Your task to perform on an android device: turn on translation in the chrome app Image 0: 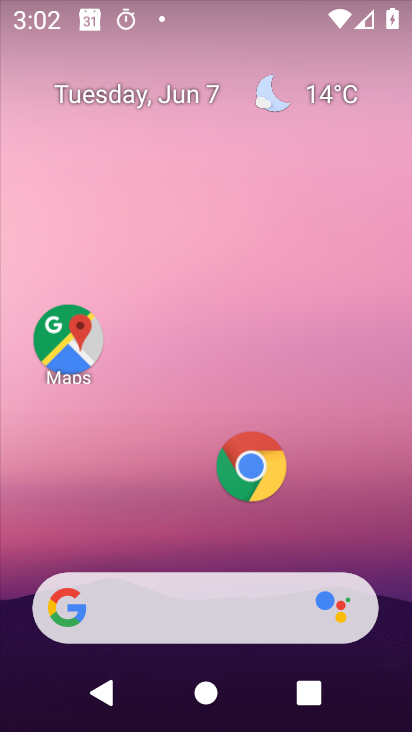
Step 0: click (268, 491)
Your task to perform on an android device: turn on translation in the chrome app Image 1: 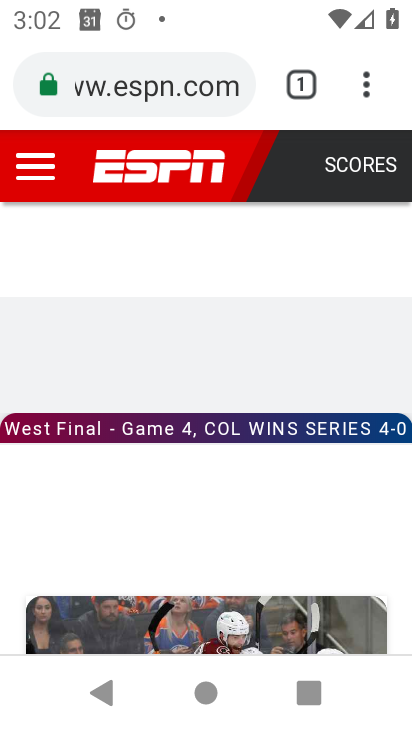
Step 1: click (358, 88)
Your task to perform on an android device: turn on translation in the chrome app Image 2: 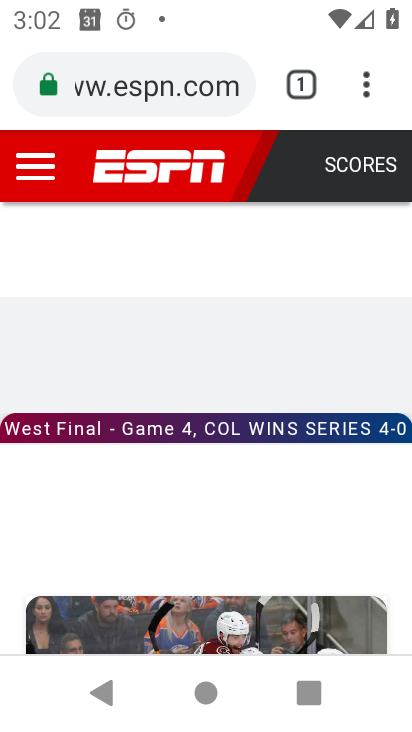
Step 2: click (367, 83)
Your task to perform on an android device: turn on translation in the chrome app Image 3: 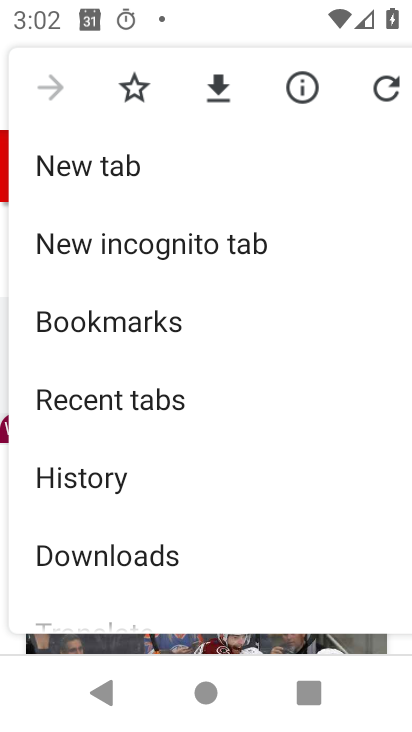
Step 3: drag from (190, 529) to (239, 193)
Your task to perform on an android device: turn on translation in the chrome app Image 4: 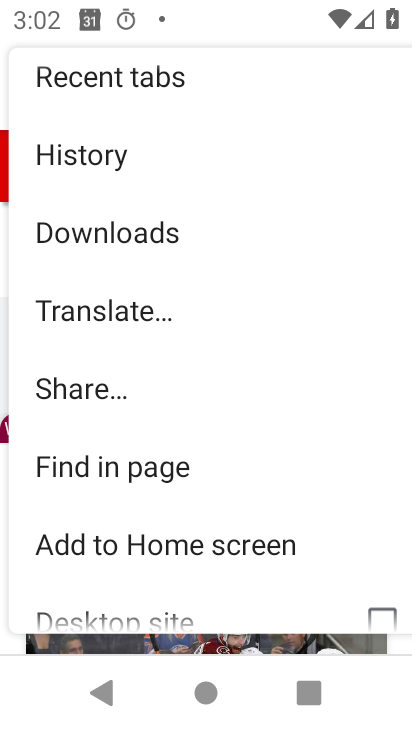
Step 4: drag from (117, 577) to (162, 290)
Your task to perform on an android device: turn on translation in the chrome app Image 5: 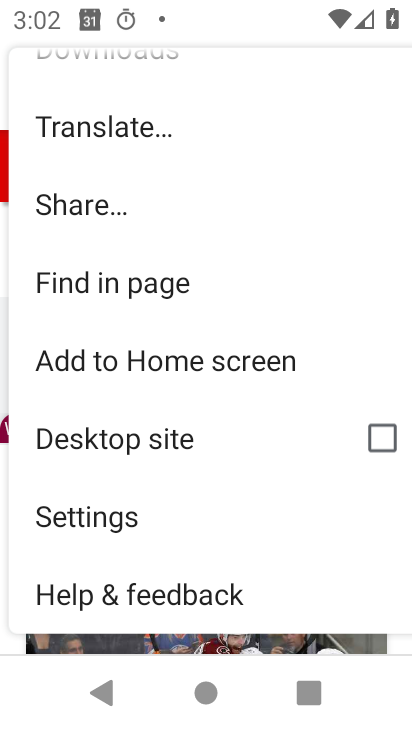
Step 5: click (100, 523)
Your task to perform on an android device: turn on translation in the chrome app Image 6: 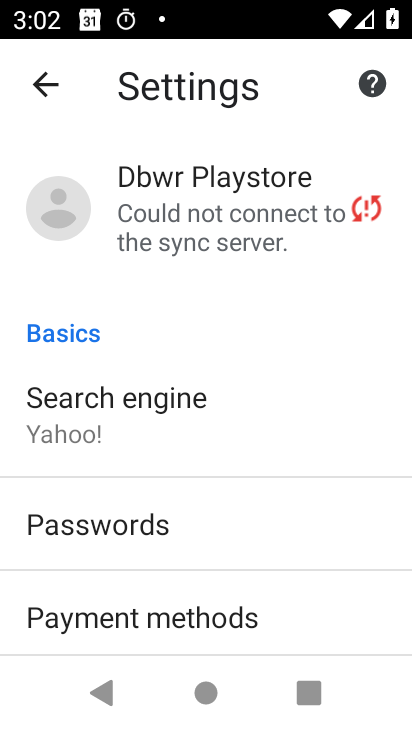
Step 6: drag from (238, 495) to (263, 296)
Your task to perform on an android device: turn on translation in the chrome app Image 7: 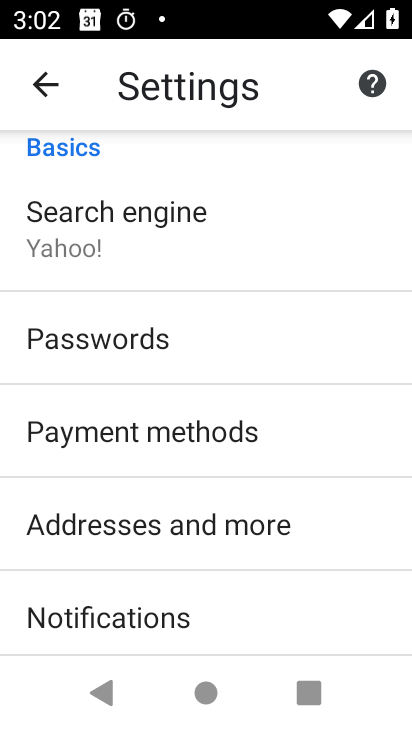
Step 7: drag from (242, 588) to (279, 272)
Your task to perform on an android device: turn on translation in the chrome app Image 8: 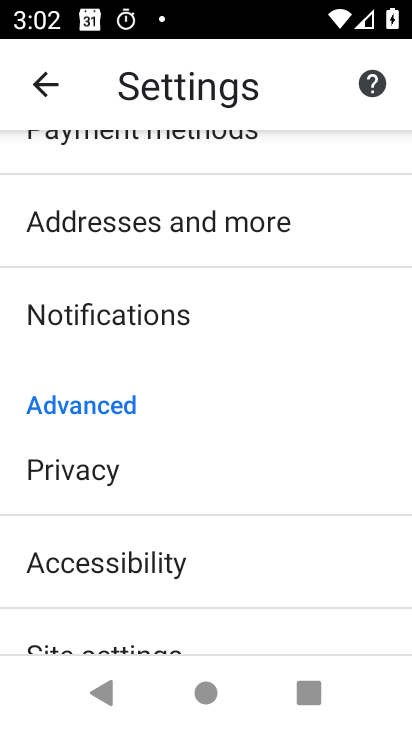
Step 8: drag from (247, 571) to (271, 381)
Your task to perform on an android device: turn on translation in the chrome app Image 9: 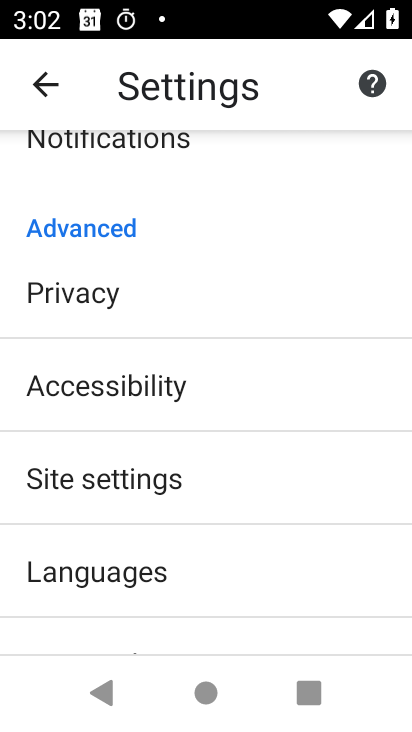
Step 9: click (132, 572)
Your task to perform on an android device: turn on translation in the chrome app Image 10: 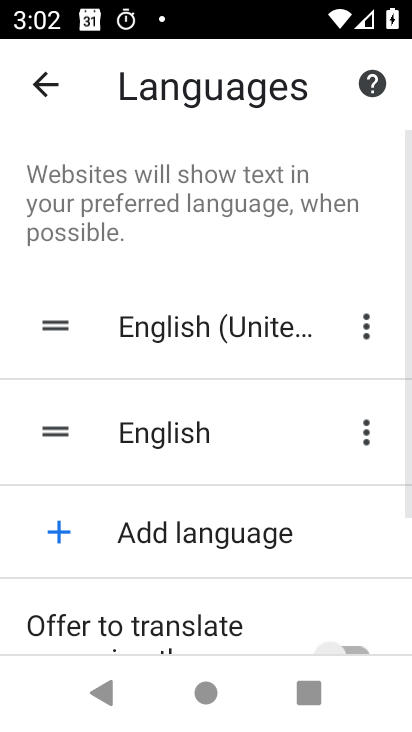
Step 10: drag from (305, 559) to (383, 228)
Your task to perform on an android device: turn on translation in the chrome app Image 11: 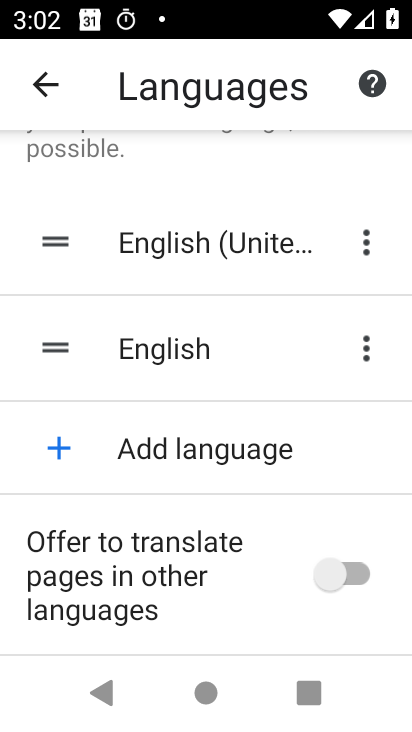
Step 11: click (347, 577)
Your task to perform on an android device: turn on translation in the chrome app Image 12: 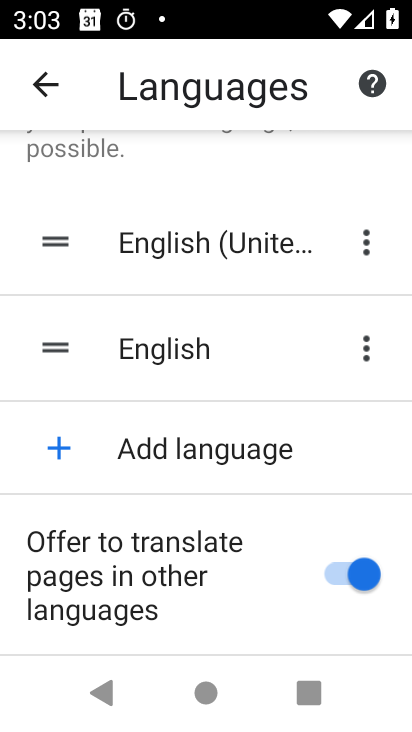
Step 12: task complete